Your task to perform on an android device: Open Google Chrome and open the bookmarks view Image 0: 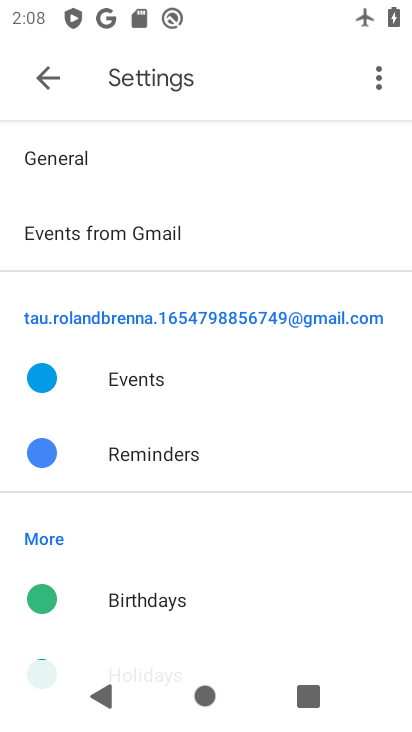
Step 0: press back button
Your task to perform on an android device: Open Google Chrome and open the bookmarks view Image 1: 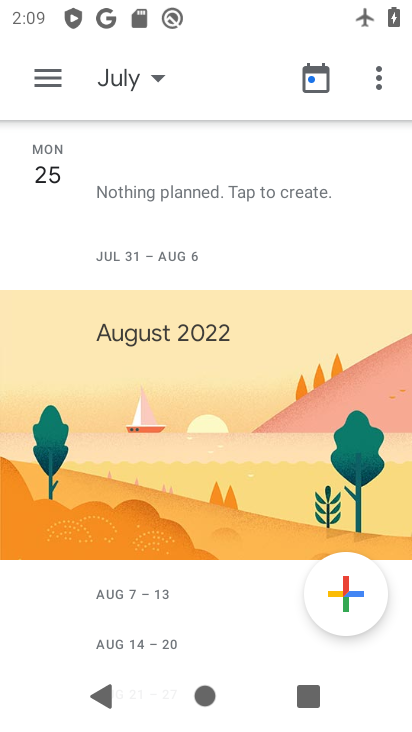
Step 1: press back button
Your task to perform on an android device: Open Google Chrome and open the bookmarks view Image 2: 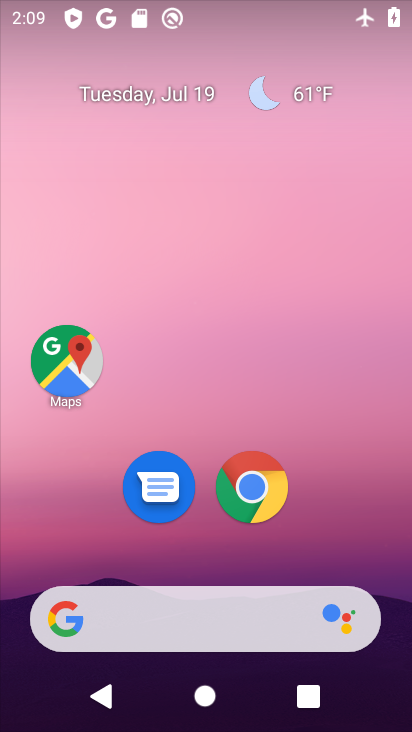
Step 2: click (253, 476)
Your task to perform on an android device: Open Google Chrome and open the bookmarks view Image 3: 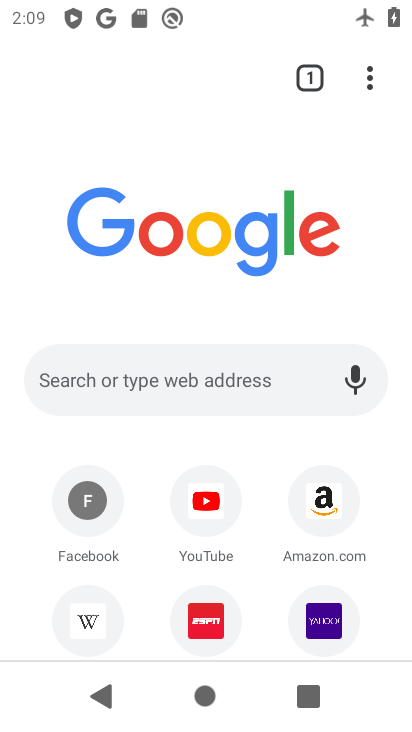
Step 3: task complete